Your task to perform on an android device: Search for the best rated mechanical keyboard on Amazon. Image 0: 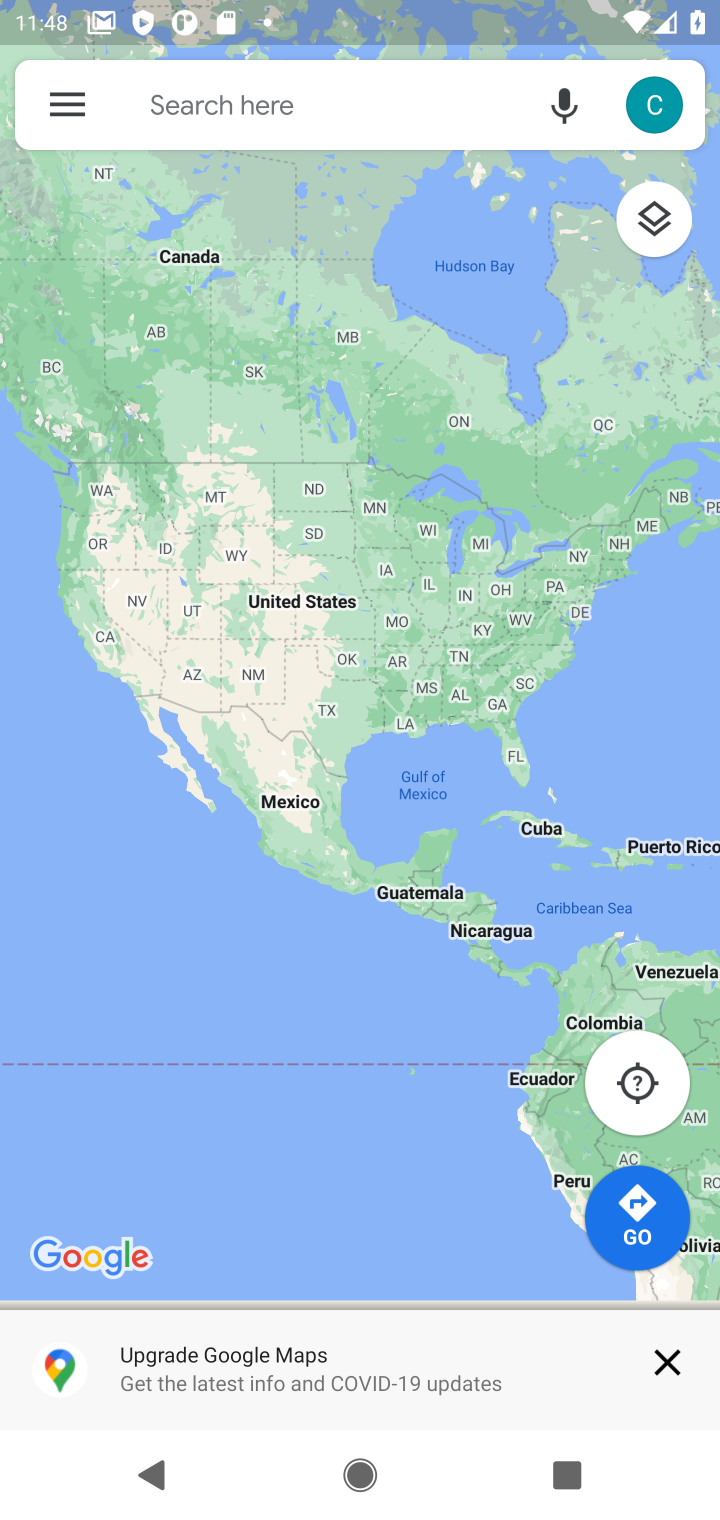
Step 0: press home button
Your task to perform on an android device: Search for the best rated mechanical keyboard on Amazon. Image 1: 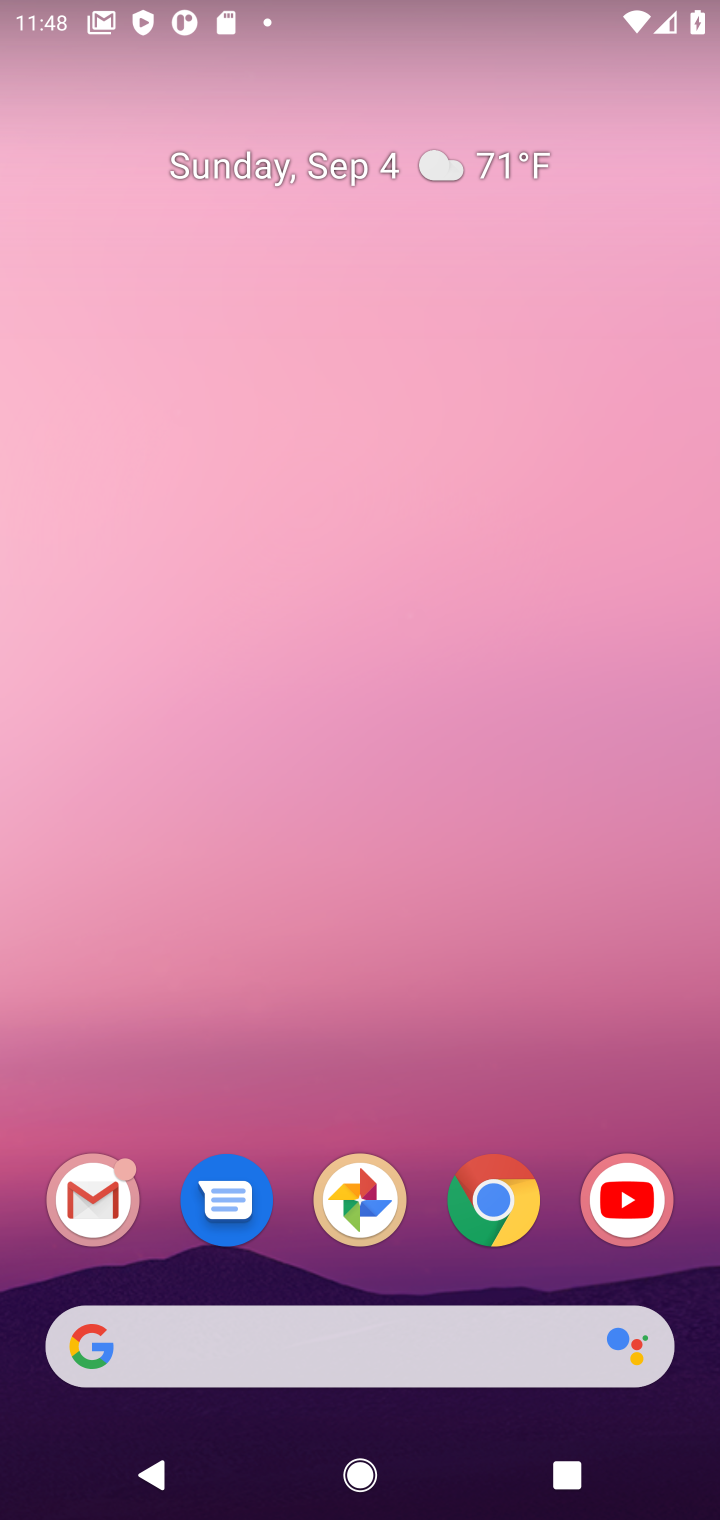
Step 1: click (469, 1211)
Your task to perform on an android device: Search for the best rated mechanical keyboard on Amazon. Image 2: 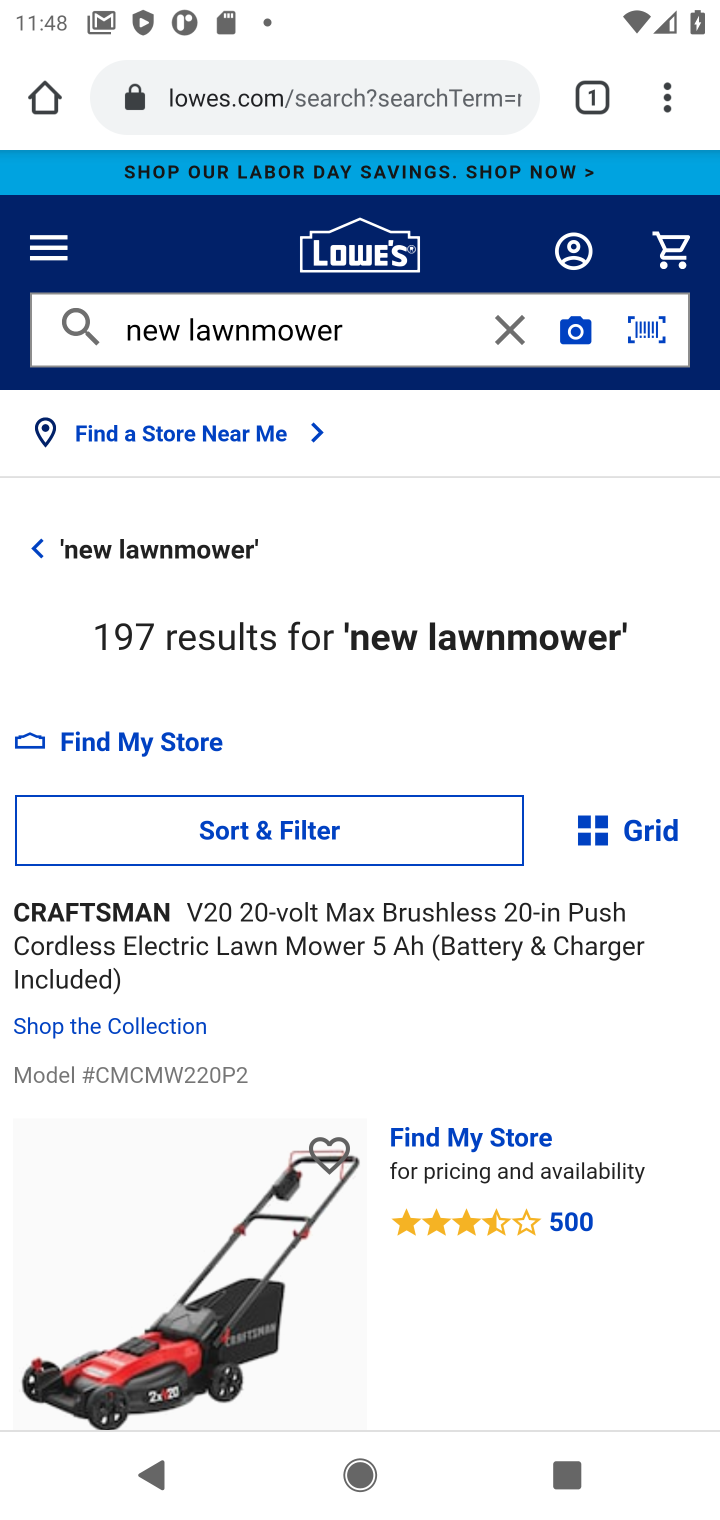
Step 2: click (449, 97)
Your task to perform on an android device: Search for the best rated mechanical keyboard on Amazon. Image 3: 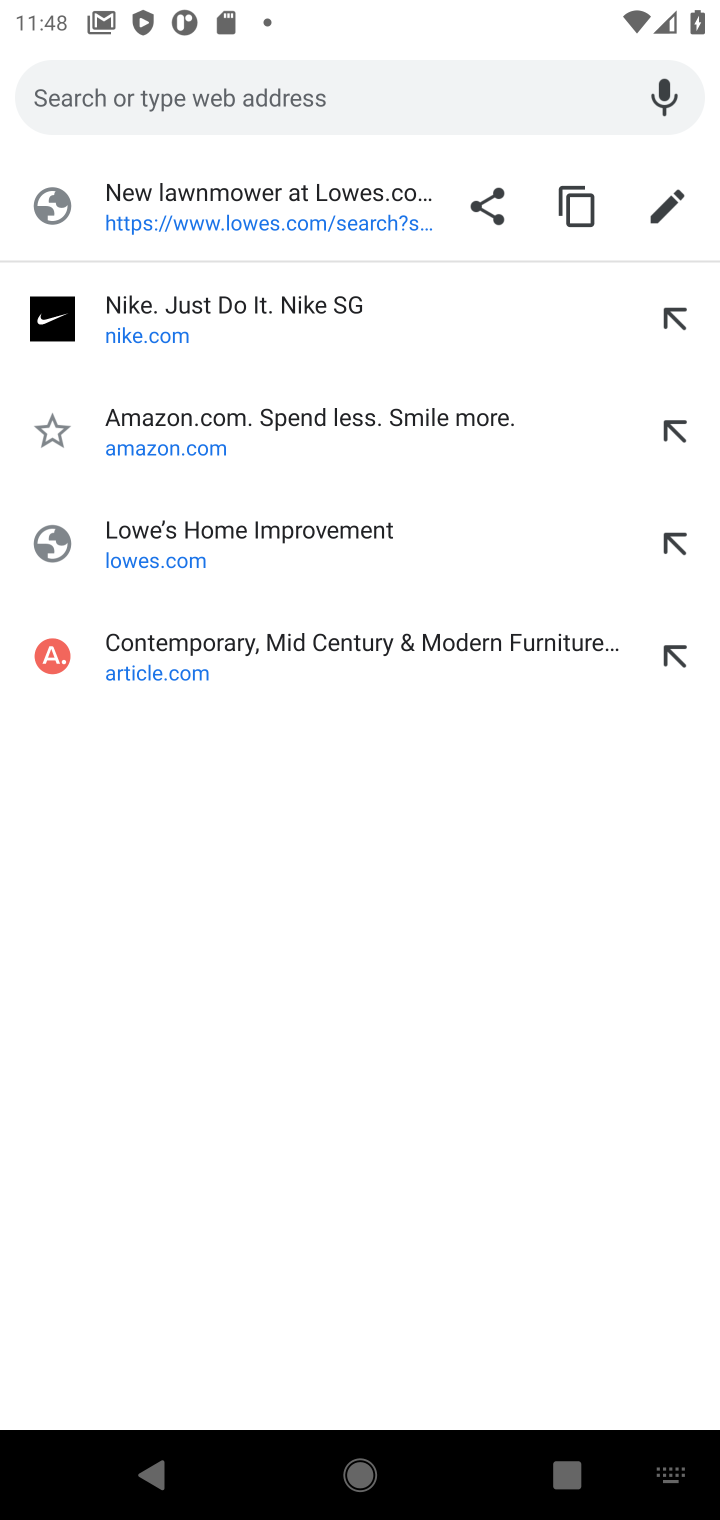
Step 3: type "amazon"
Your task to perform on an android device: Search for the best rated mechanical keyboard on Amazon. Image 4: 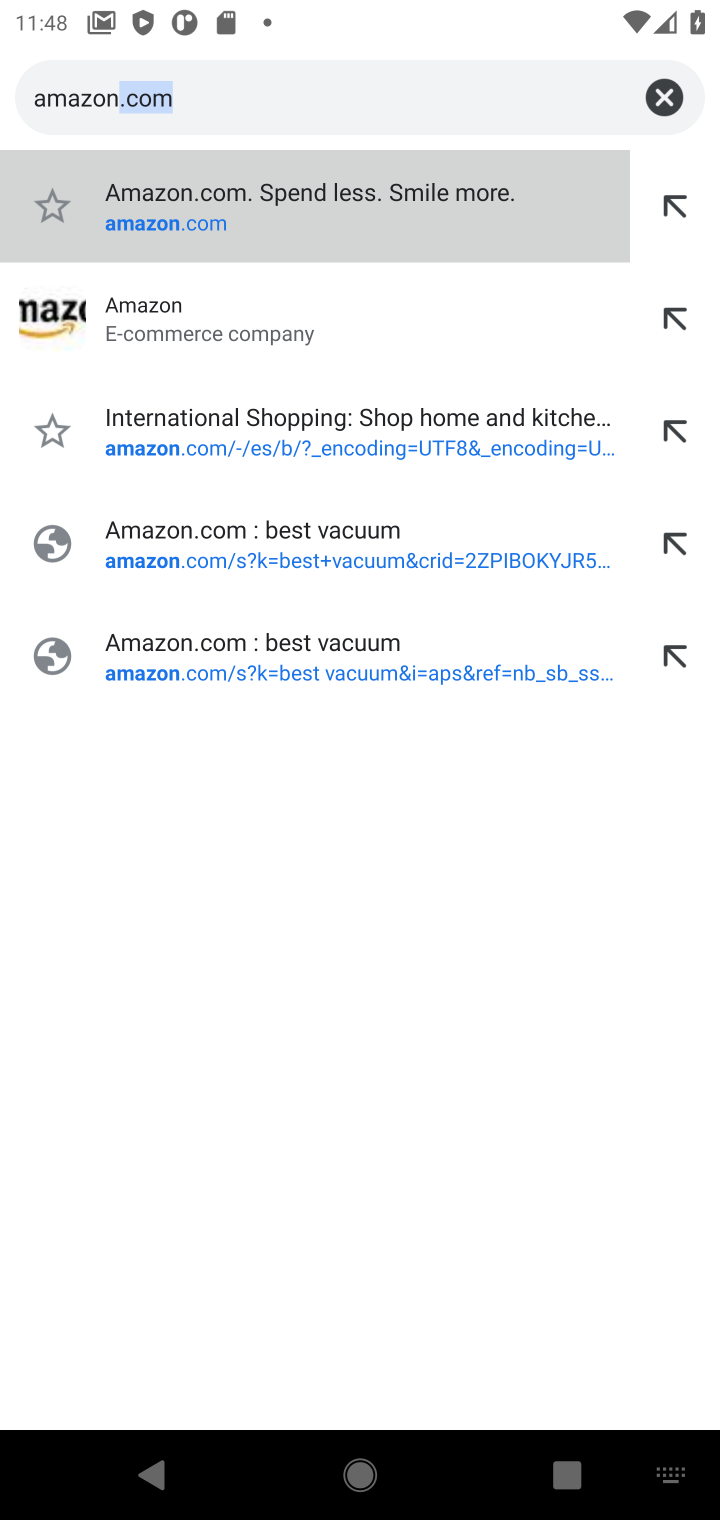
Step 4: click (398, 225)
Your task to perform on an android device: Search for the best rated mechanical keyboard on Amazon. Image 5: 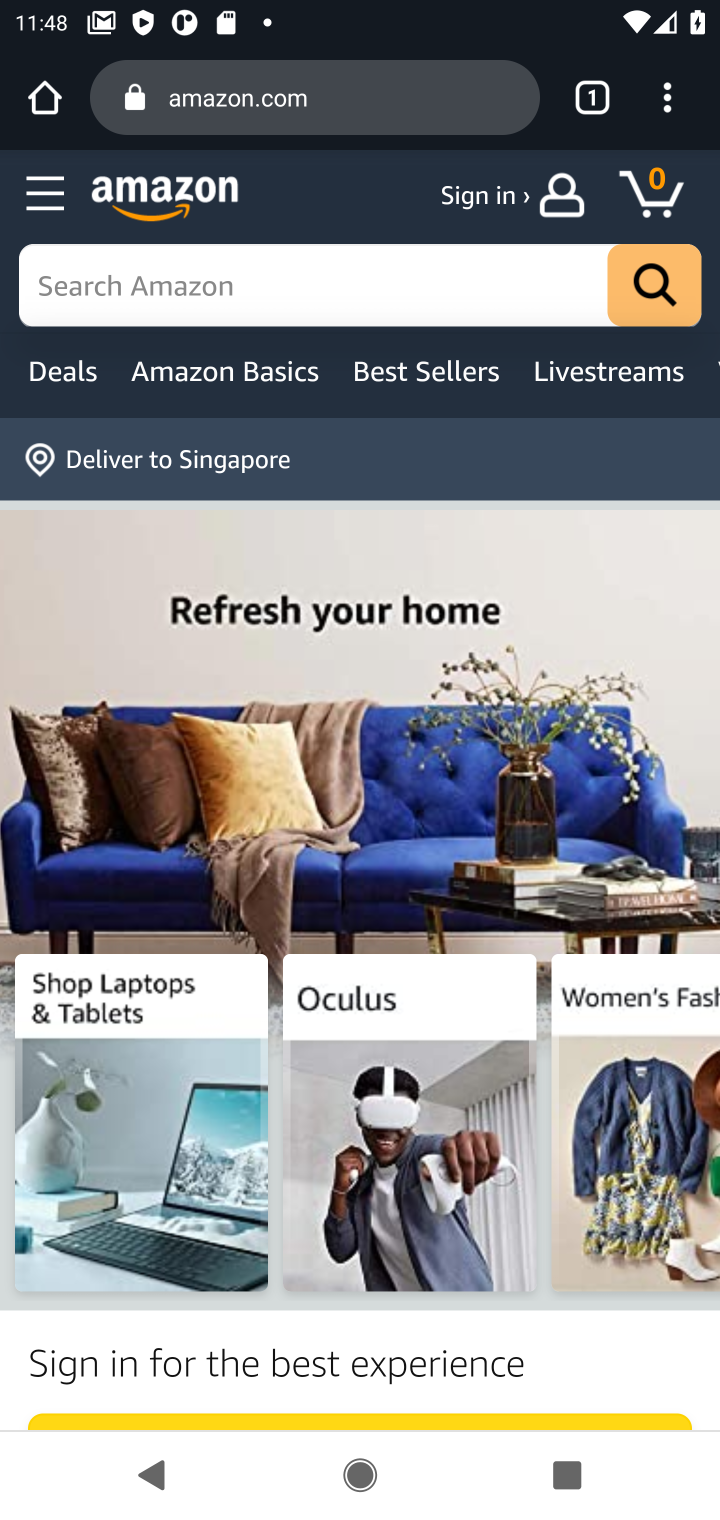
Step 5: click (285, 280)
Your task to perform on an android device: Search for the best rated mechanical keyboard on Amazon. Image 6: 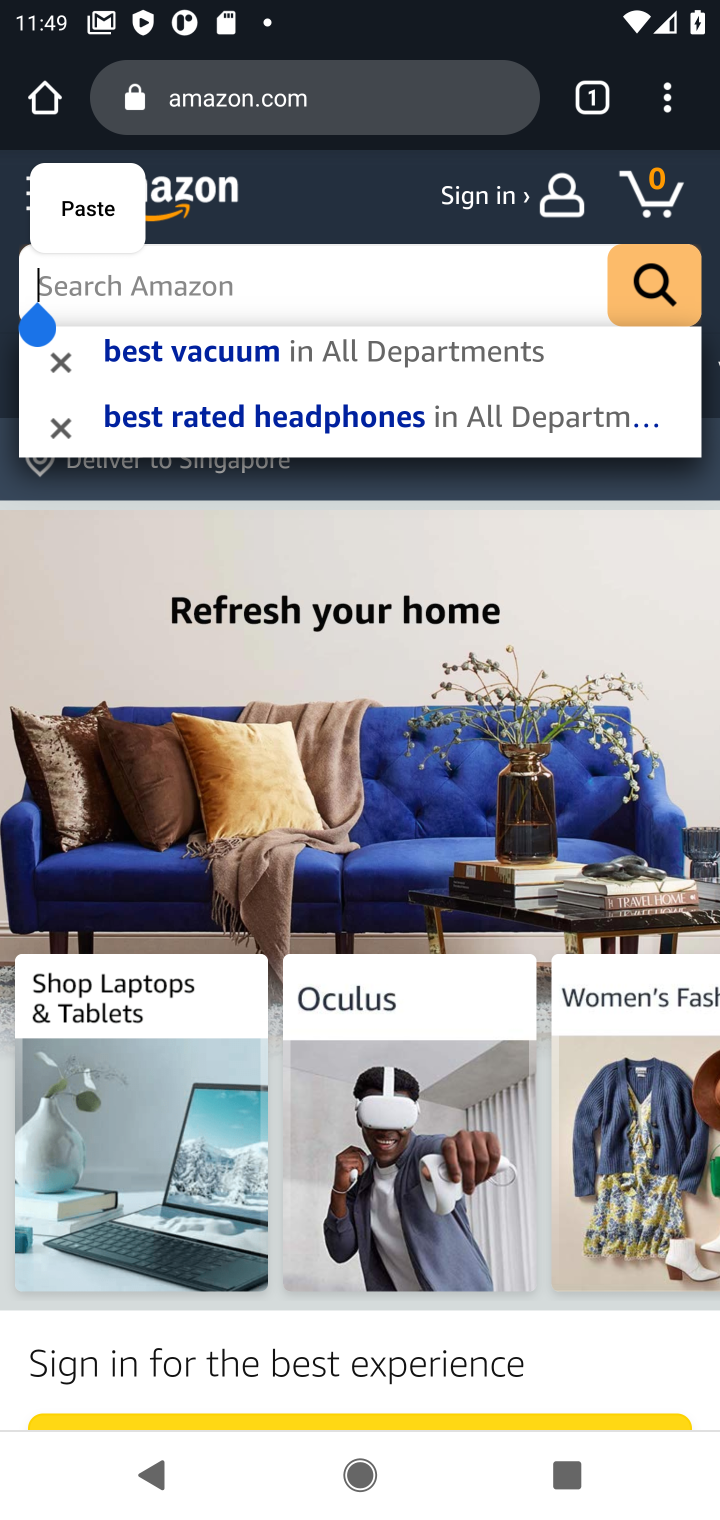
Step 6: type "best rated machanical keyboard"
Your task to perform on an android device: Search for the best rated mechanical keyboard on Amazon. Image 7: 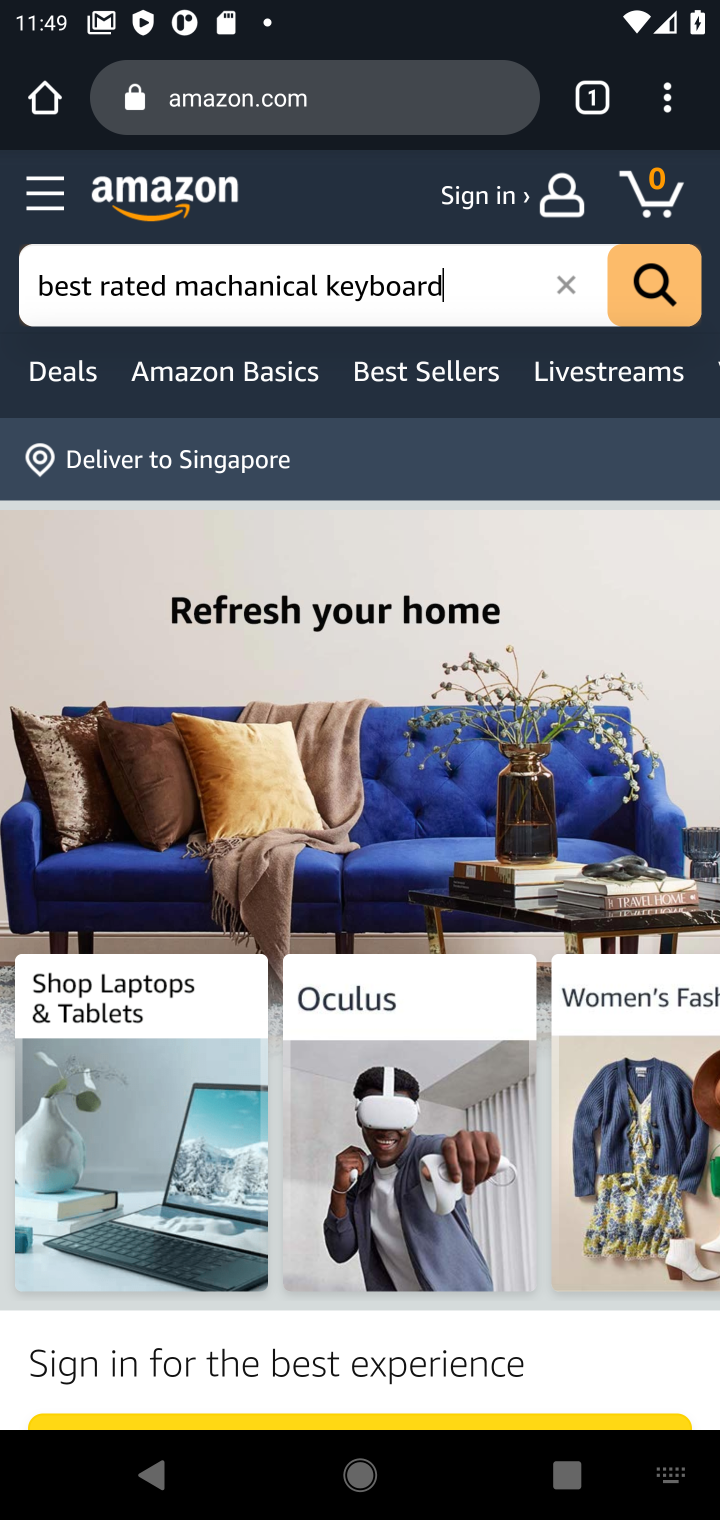
Step 7: click (642, 295)
Your task to perform on an android device: Search for the best rated mechanical keyboard on Amazon. Image 8: 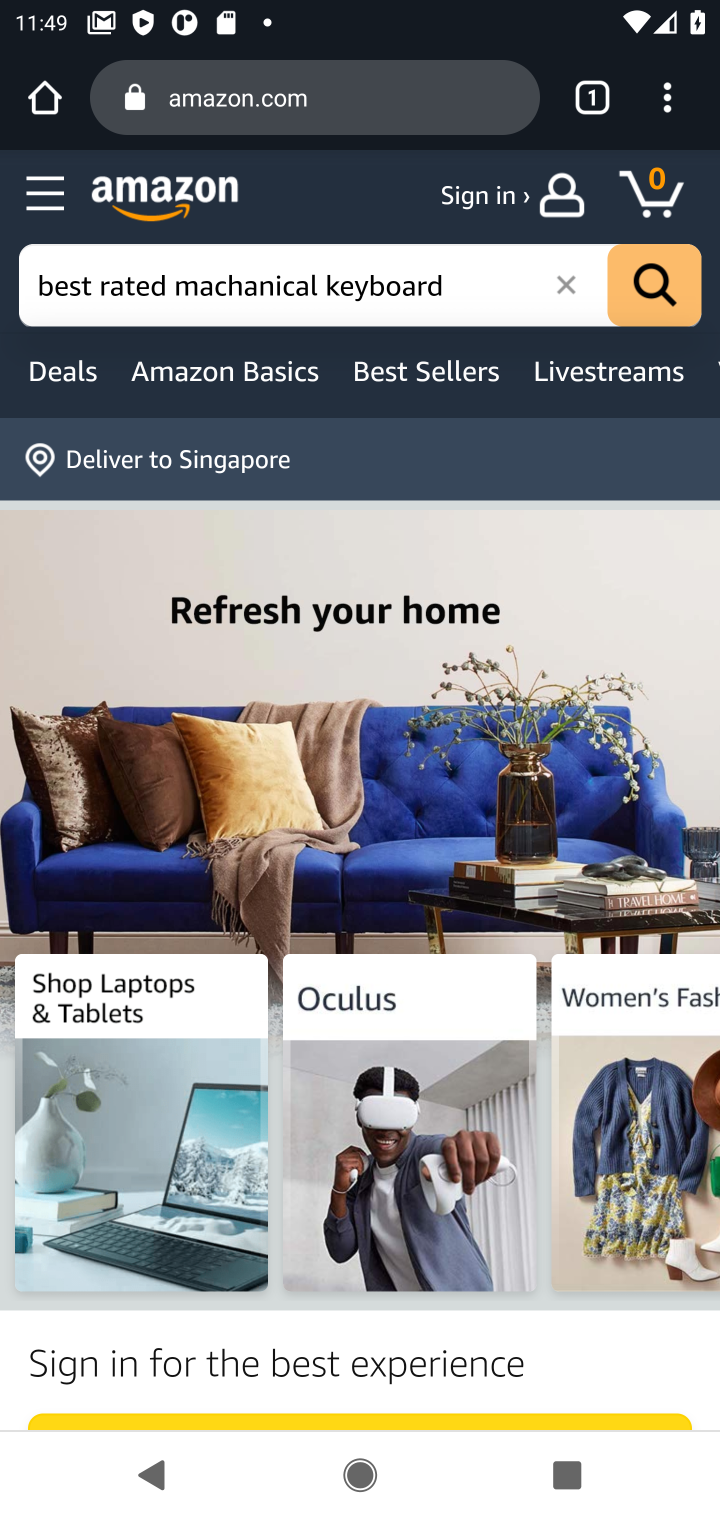
Step 8: click (638, 309)
Your task to perform on an android device: Search for the best rated mechanical keyboard on Amazon. Image 9: 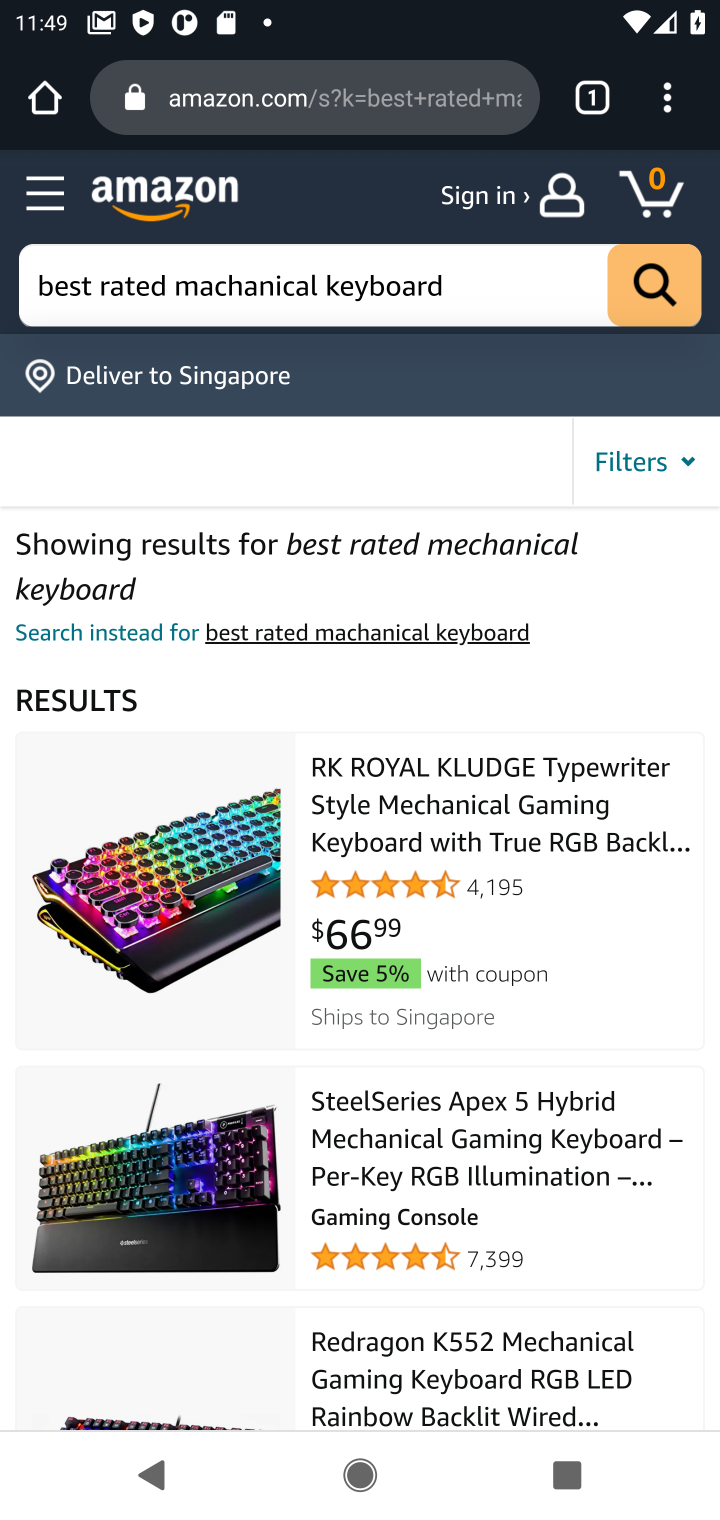
Step 9: task complete